Your task to perform on an android device: Open location settings Image 0: 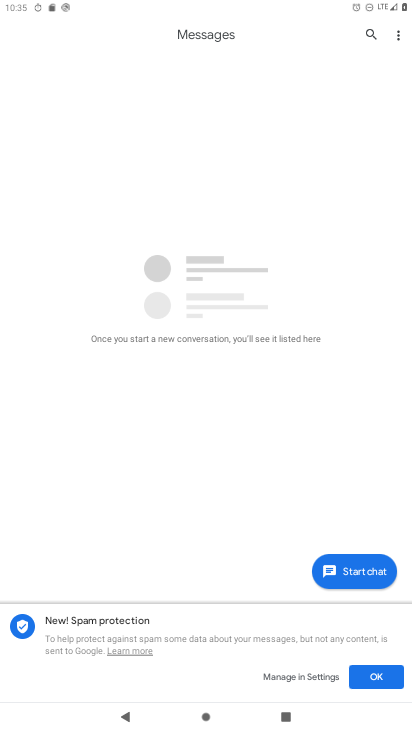
Step 0: drag from (249, 9) to (287, 698)
Your task to perform on an android device: Open location settings Image 1: 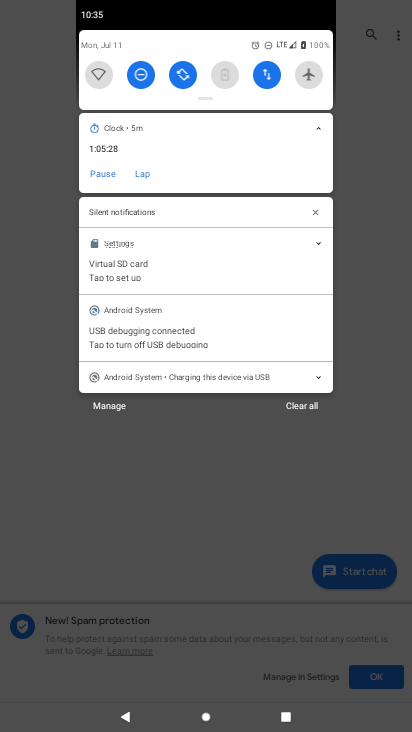
Step 1: drag from (200, 44) to (132, 716)
Your task to perform on an android device: Open location settings Image 2: 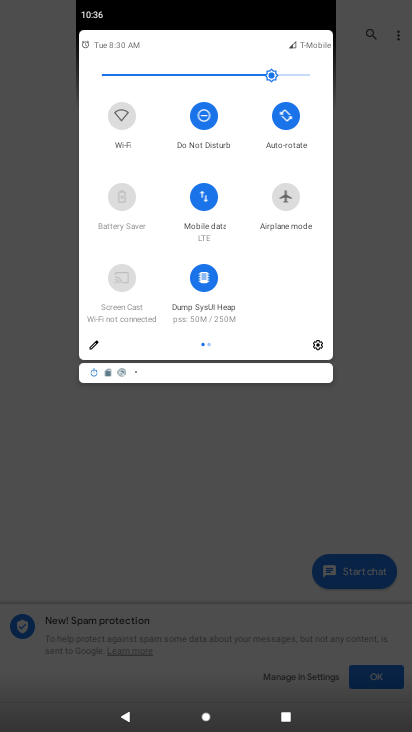
Step 2: click (309, 343)
Your task to perform on an android device: Open location settings Image 3: 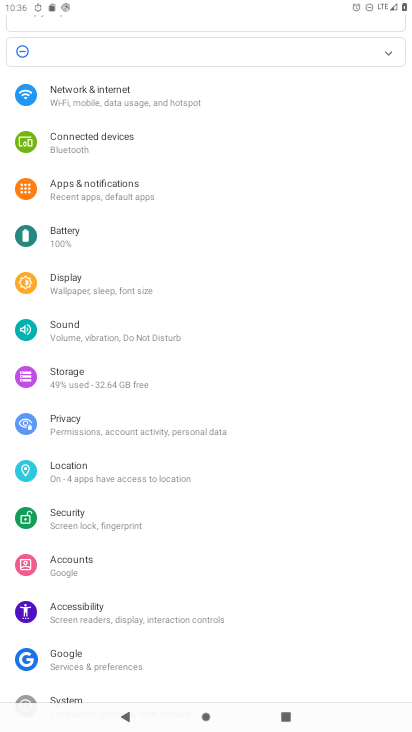
Step 3: click (107, 481)
Your task to perform on an android device: Open location settings Image 4: 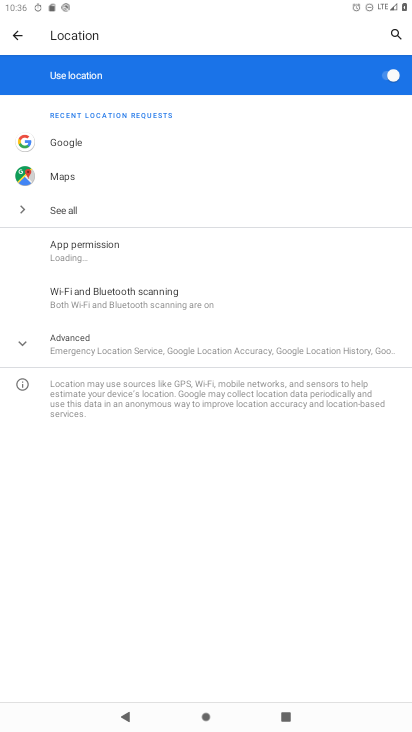
Step 4: task complete